Your task to perform on an android device: Open sound settings Image 0: 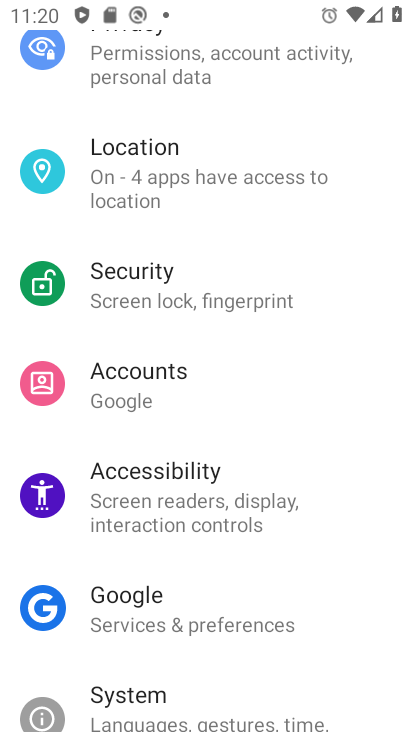
Step 0: press home button
Your task to perform on an android device: Open sound settings Image 1: 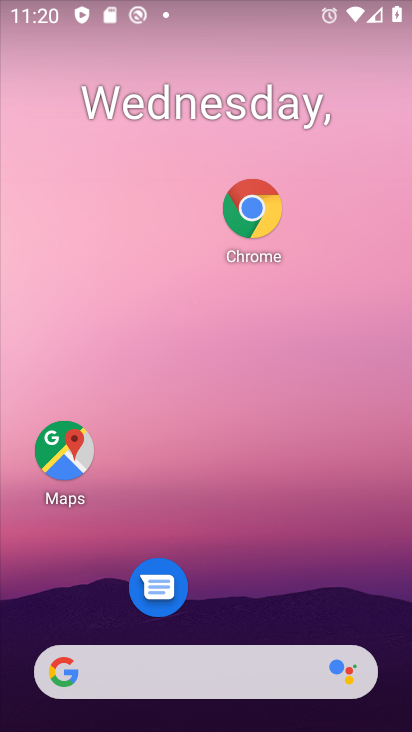
Step 1: drag from (230, 606) to (223, 128)
Your task to perform on an android device: Open sound settings Image 2: 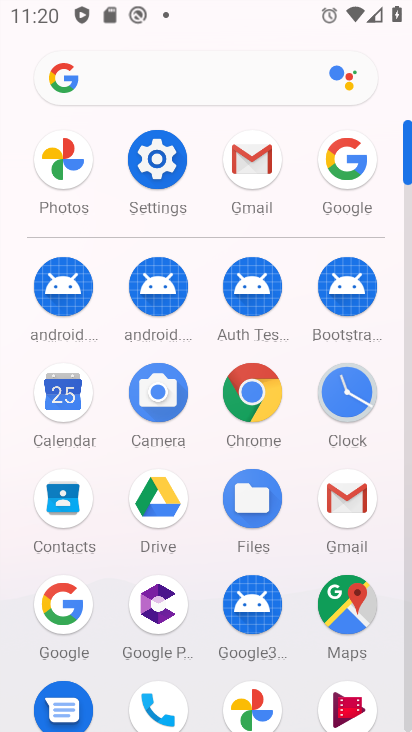
Step 2: click (152, 175)
Your task to perform on an android device: Open sound settings Image 3: 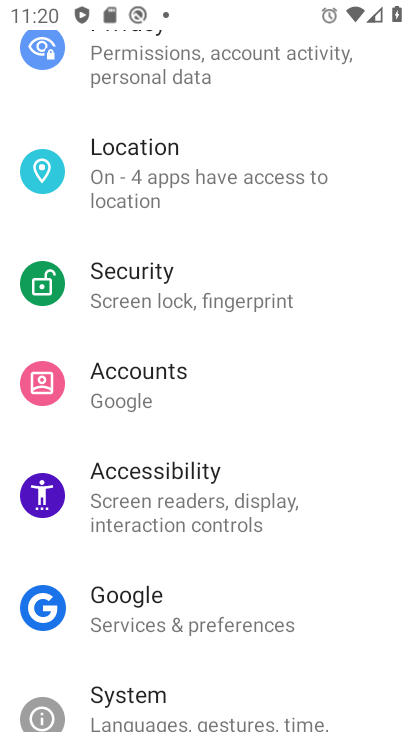
Step 3: drag from (180, 204) to (177, 672)
Your task to perform on an android device: Open sound settings Image 4: 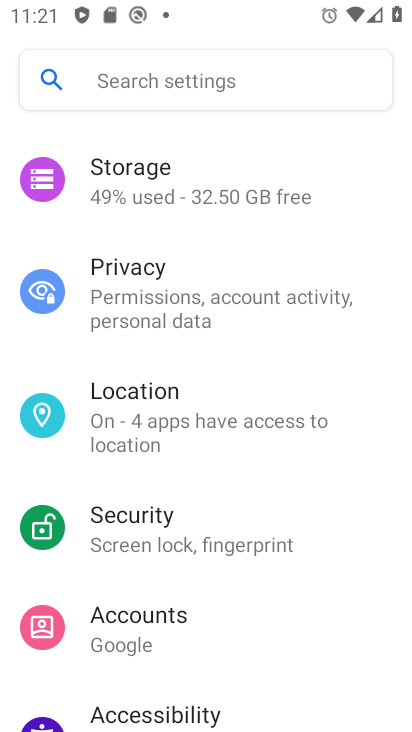
Step 4: drag from (193, 248) to (175, 560)
Your task to perform on an android device: Open sound settings Image 5: 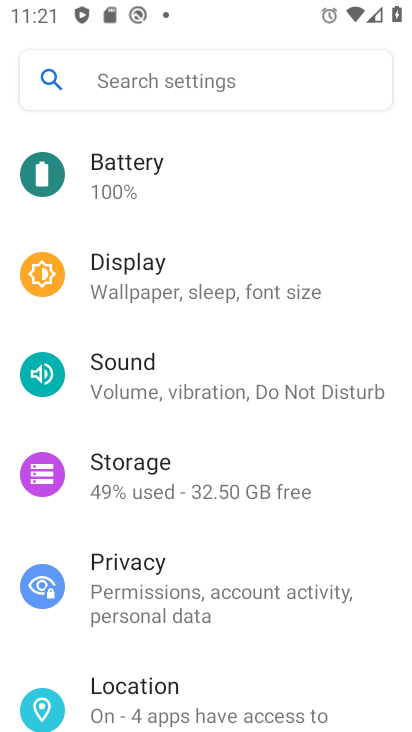
Step 5: click (125, 363)
Your task to perform on an android device: Open sound settings Image 6: 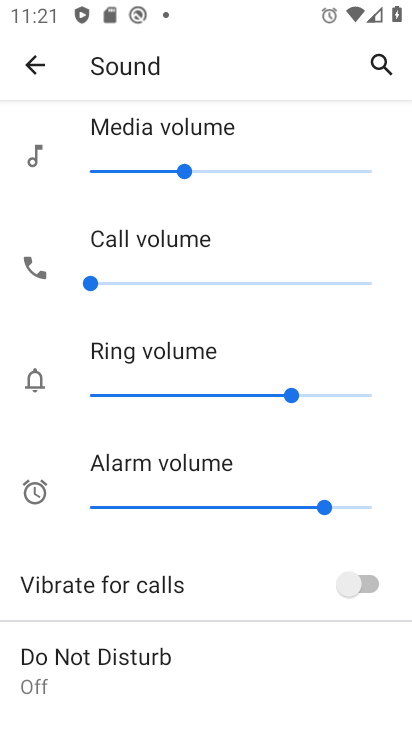
Step 6: task complete